Your task to perform on an android device: Open maps Image 0: 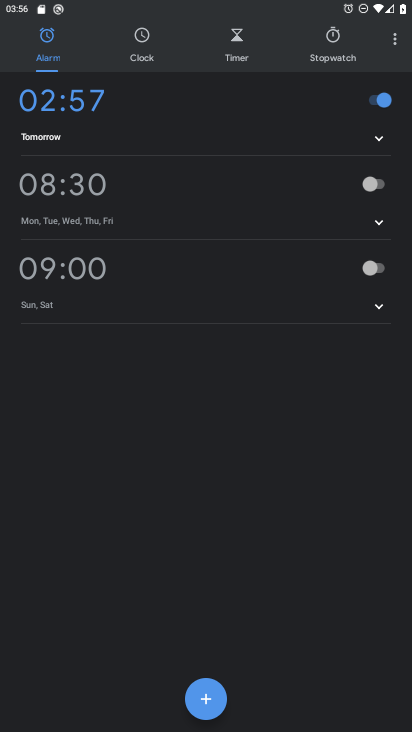
Step 0: press home button
Your task to perform on an android device: Open maps Image 1: 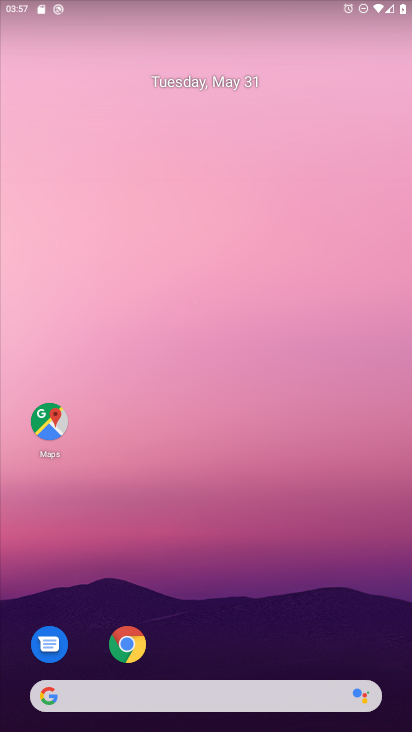
Step 1: click (48, 421)
Your task to perform on an android device: Open maps Image 2: 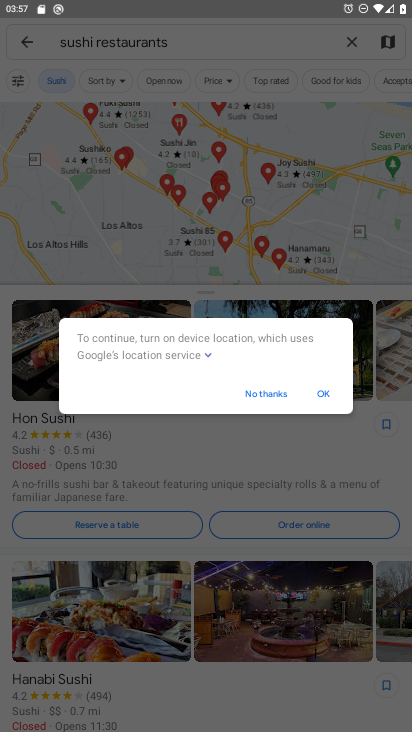
Step 2: click (325, 389)
Your task to perform on an android device: Open maps Image 3: 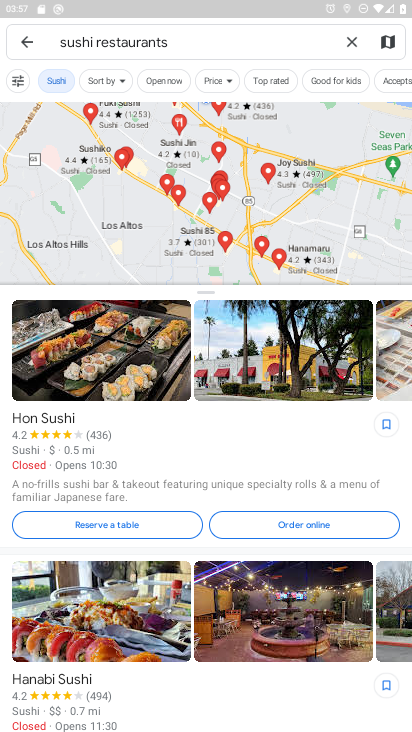
Step 3: task complete